Your task to perform on an android device: Open Google Chrome Image 0: 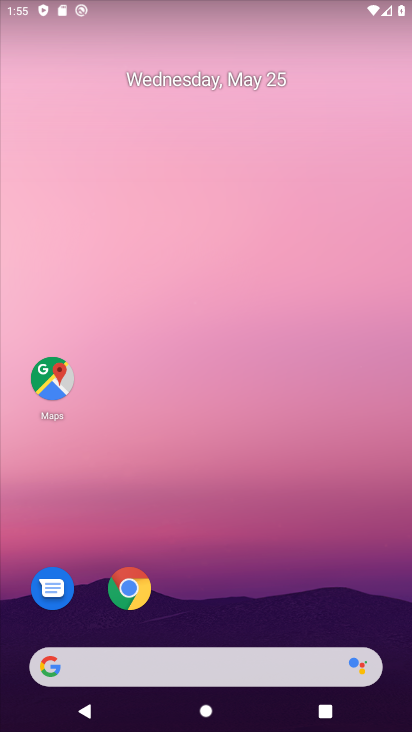
Step 0: click (133, 587)
Your task to perform on an android device: Open Google Chrome Image 1: 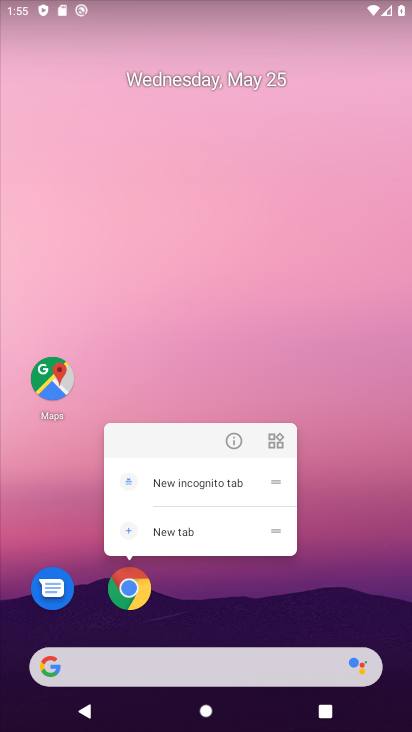
Step 1: click (131, 589)
Your task to perform on an android device: Open Google Chrome Image 2: 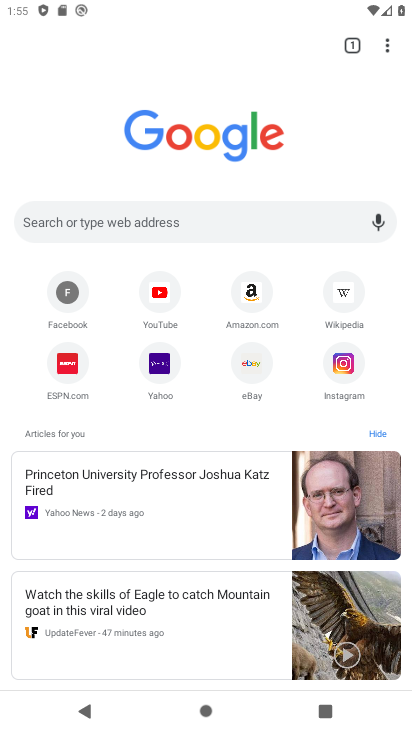
Step 2: task complete